Your task to perform on an android device: delete location history Image 0: 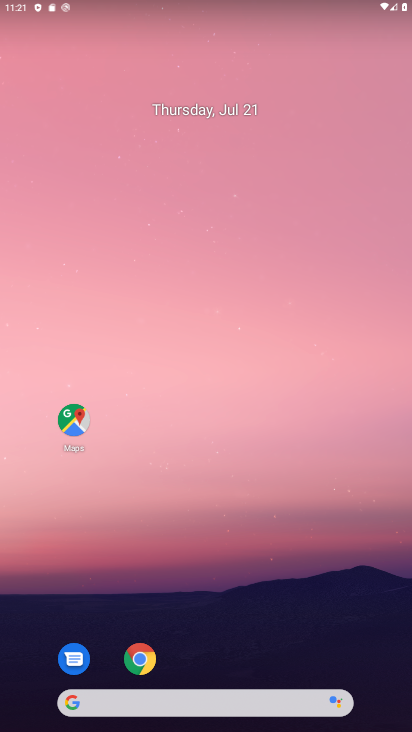
Step 0: click (74, 405)
Your task to perform on an android device: delete location history Image 1: 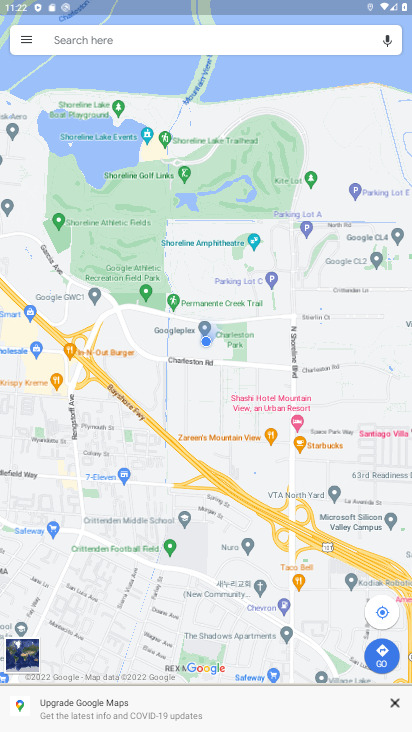
Step 1: click (35, 45)
Your task to perform on an android device: delete location history Image 2: 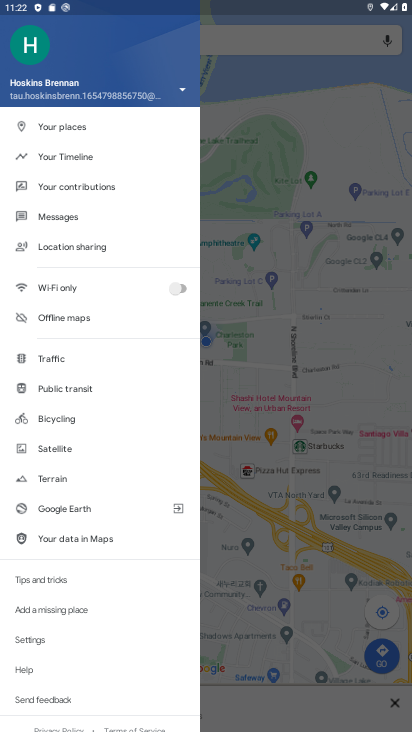
Step 2: click (62, 648)
Your task to perform on an android device: delete location history Image 3: 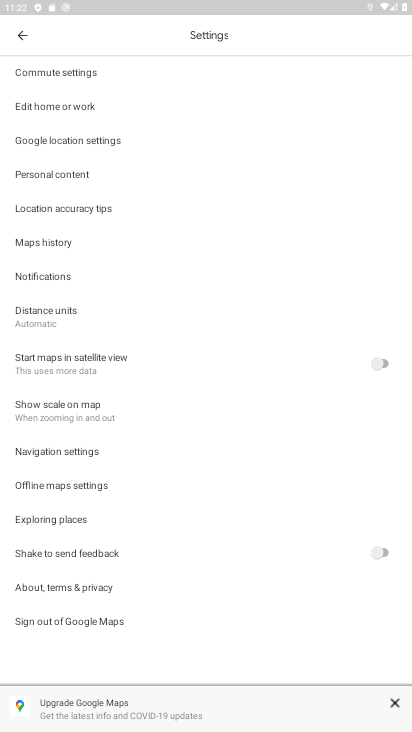
Step 3: click (24, 40)
Your task to perform on an android device: delete location history Image 4: 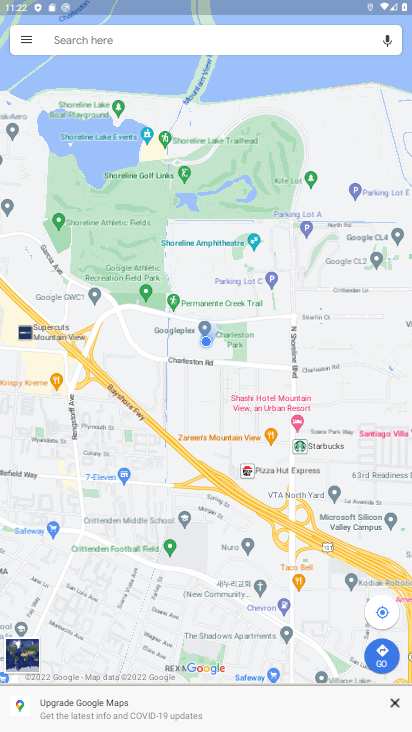
Step 4: click (27, 38)
Your task to perform on an android device: delete location history Image 5: 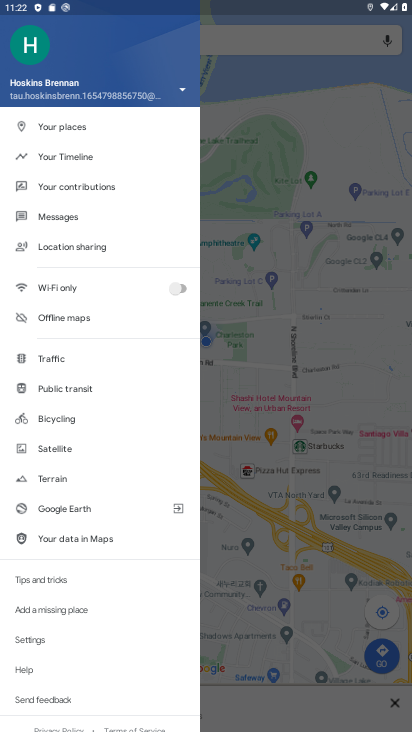
Step 5: click (50, 151)
Your task to perform on an android device: delete location history Image 6: 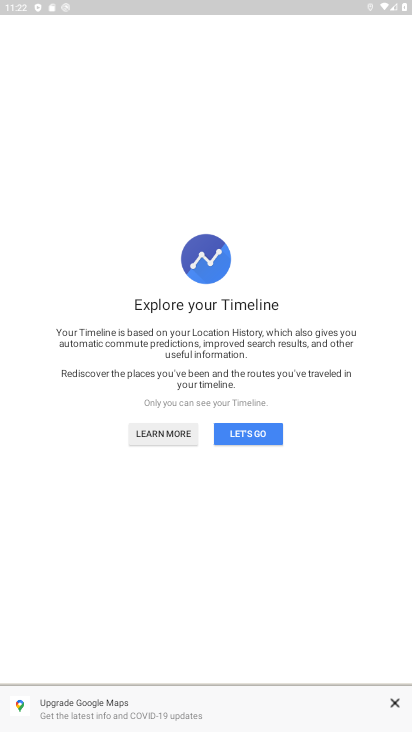
Step 6: click (265, 443)
Your task to perform on an android device: delete location history Image 7: 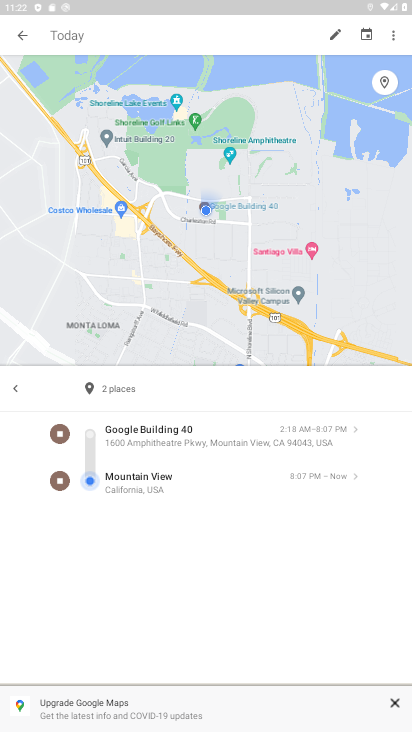
Step 7: click (395, 47)
Your task to perform on an android device: delete location history Image 8: 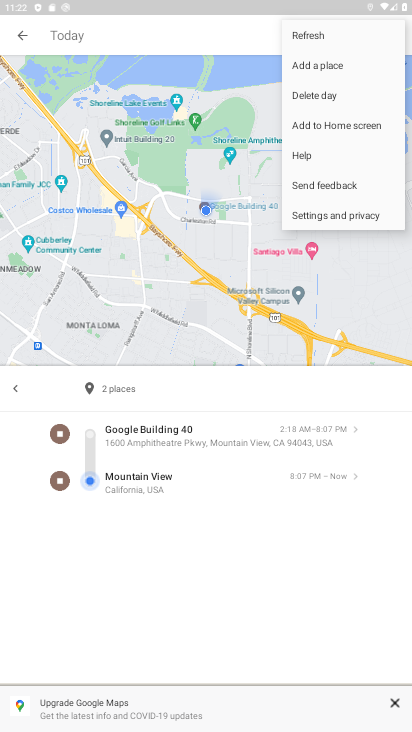
Step 8: click (324, 222)
Your task to perform on an android device: delete location history Image 9: 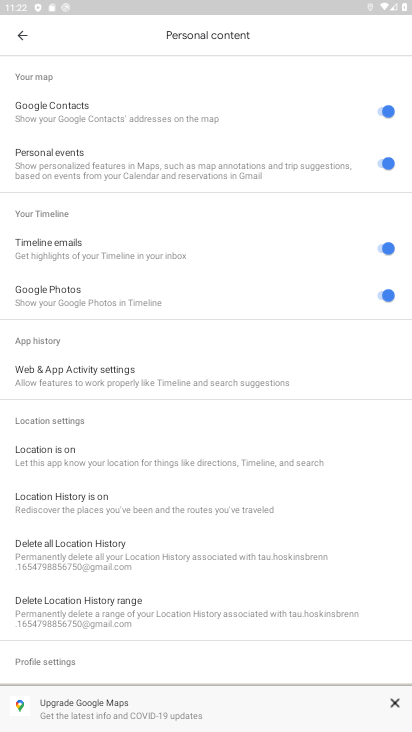
Step 9: click (146, 542)
Your task to perform on an android device: delete location history Image 10: 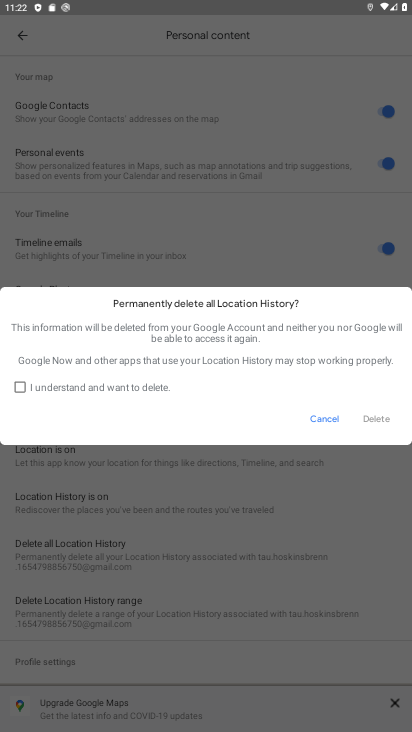
Step 10: click (26, 392)
Your task to perform on an android device: delete location history Image 11: 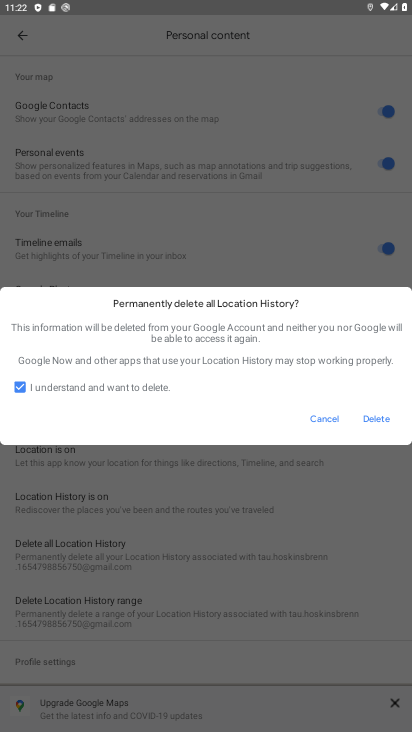
Step 11: click (383, 426)
Your task to perform on an android device: delete location history Image 12: 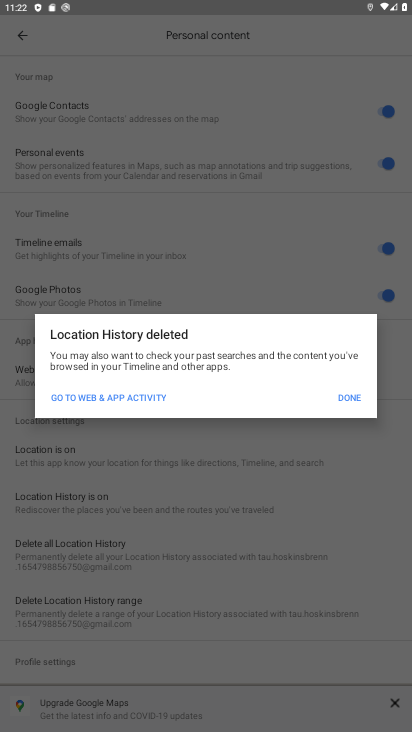
Step 12: click (347, 402)
Your task to perform on an android device: delete location history Image 13: 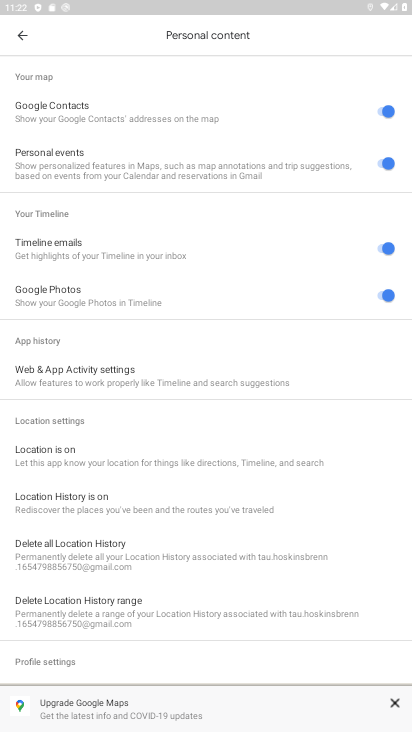
Step 13: task complete